Your task to perform on an android device: Turn on the flashlight Image 0: 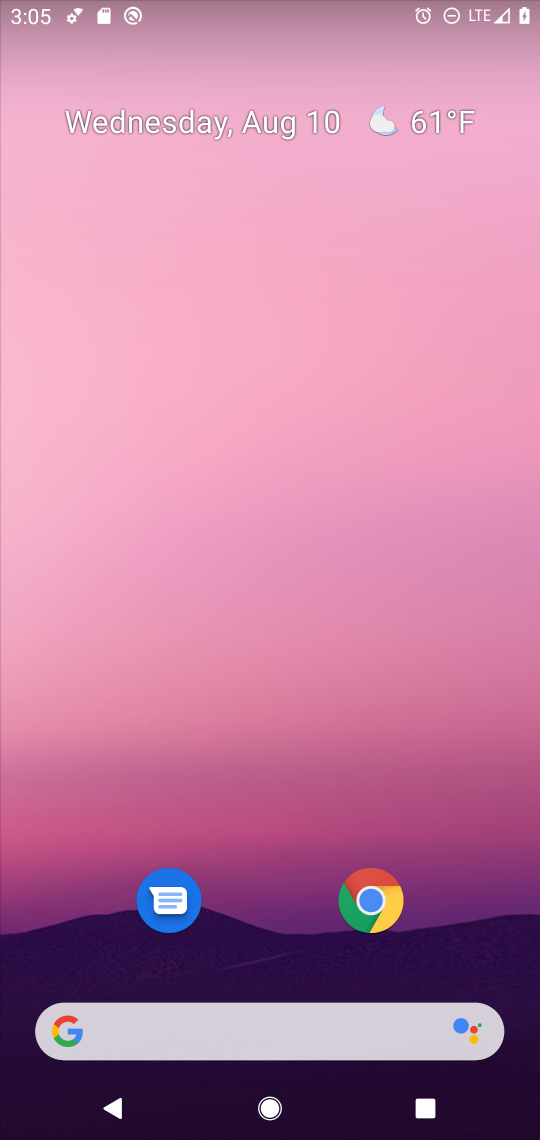
Step 0: drag from (301, 918) to (359, 41)
Your task to perform on an android device: Turn on the flashlight Image 1: 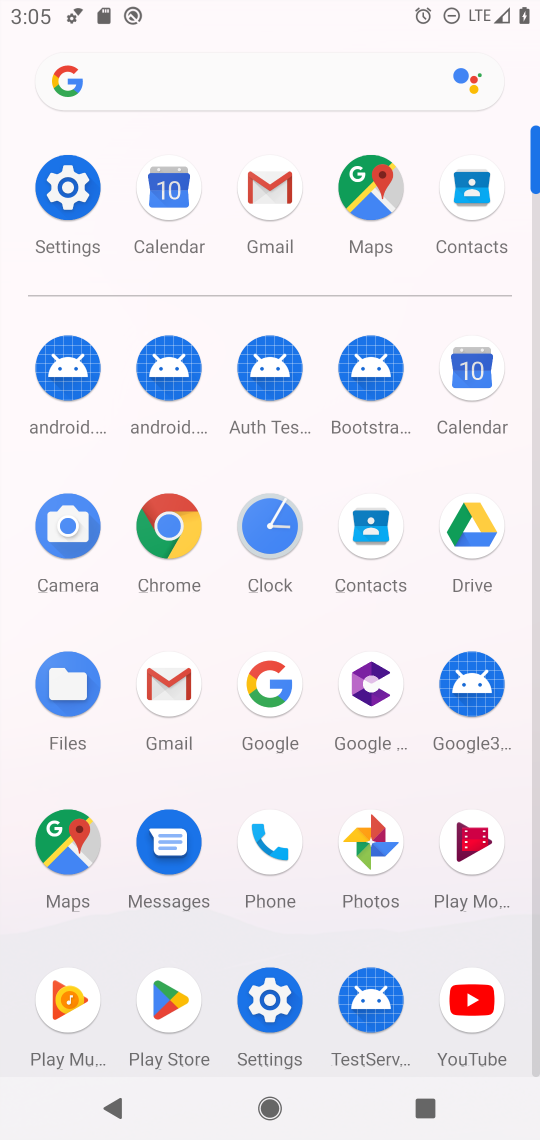
Step 1: click (272, 996)
Your task to perform on an android device: Turn on the flashlight Image 2: 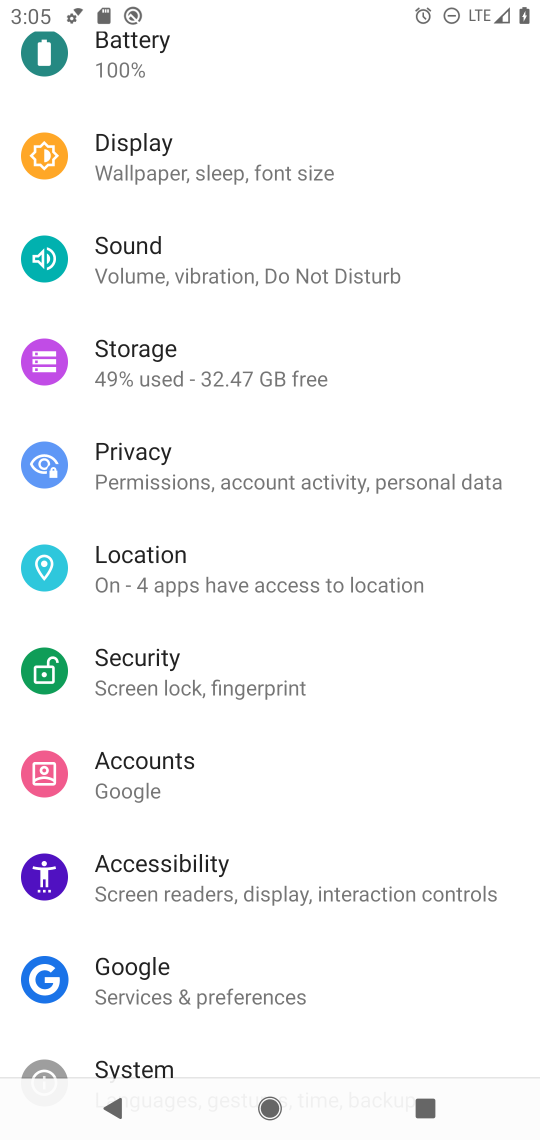
Step 2: drag from (270, 122) to (327, 1011)
Your task to perform on an android device: Turn on the flashlight Image 3: 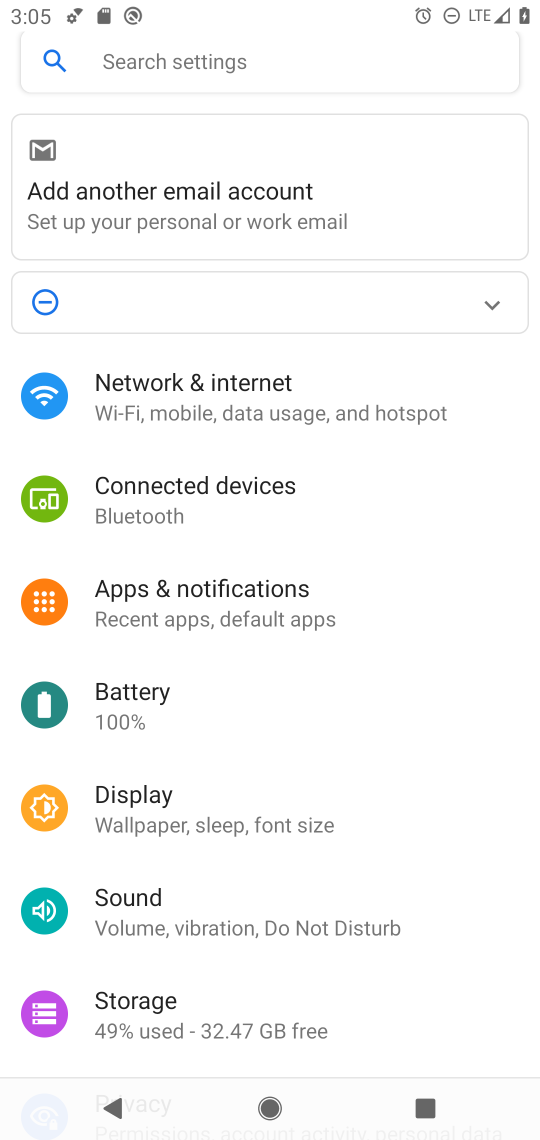
Step 3: click (284, 58)
Your task to perform on an android device: Turn on the flashlight Image 4: 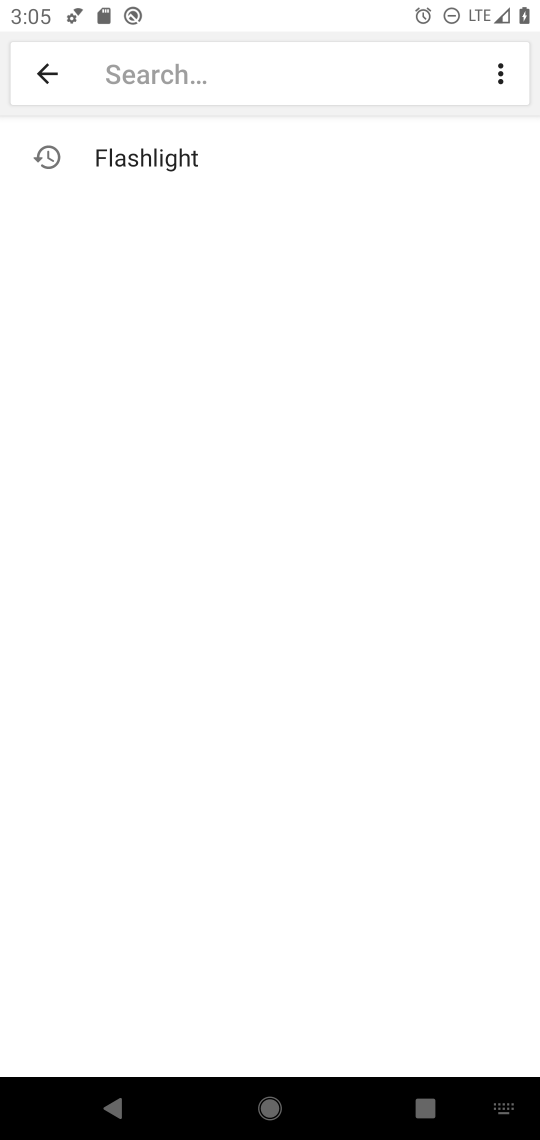
Step 4: click (176, 153)
Your task to perform on an android device: Turn on the flashlight Image 5: 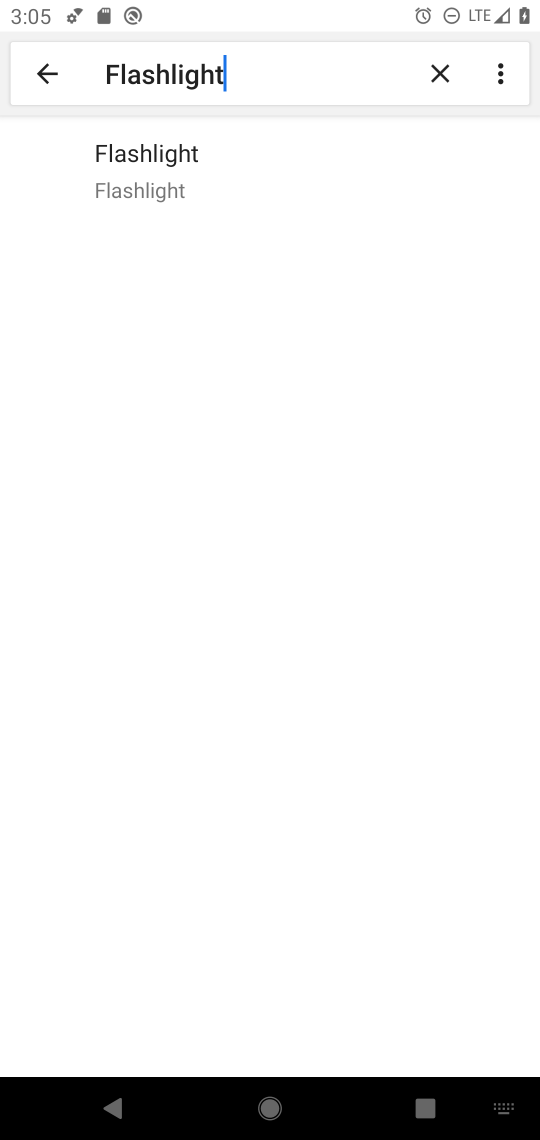
Step 5: click (180, 176)
Your task to perform on an android device: Turn on the flashlight Image 6: 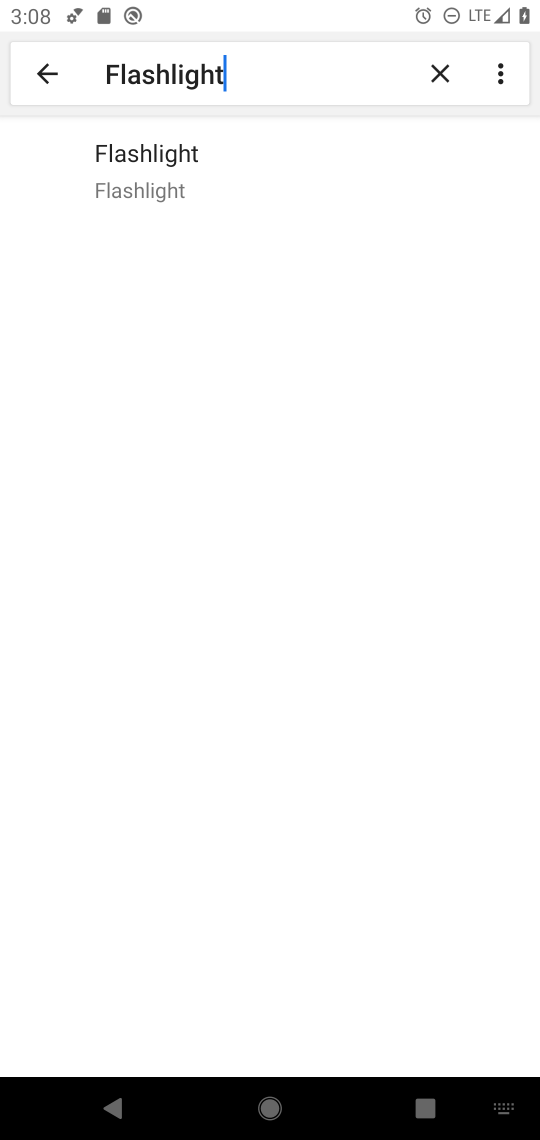
Step 6: task complete